Your task to perform on an android device: manage bookmarks in the chrome app Image 0: 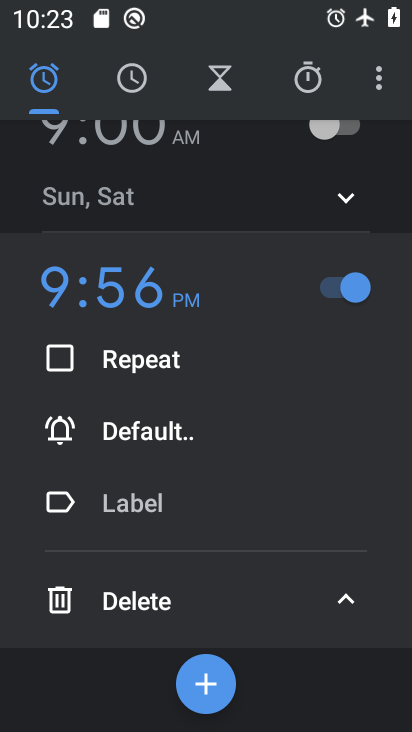
Step 0: press home button
Your task to perform on an android device: manage bookmarks in the chrome app Image 1: 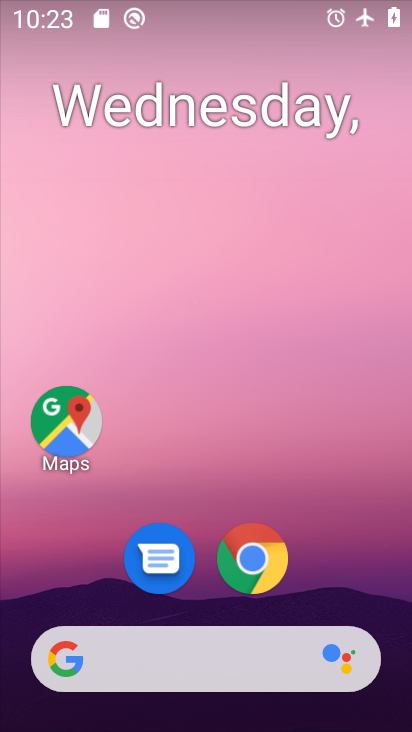
Step 1: drag from (356, 576) to (382, 112)
Your task to perform on an android device: manage bookmarks in the chrome app Image 2: 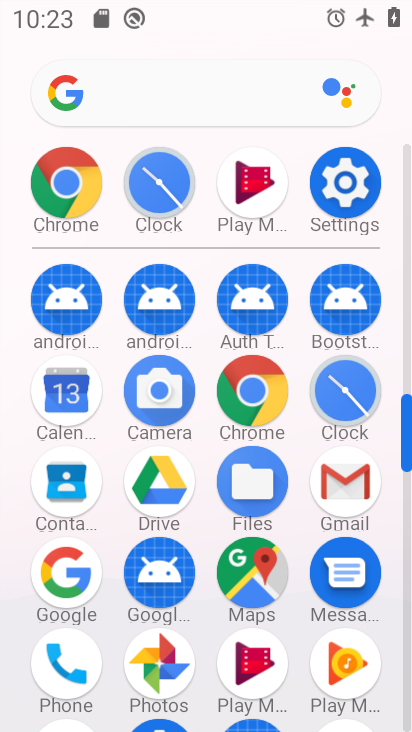
Step 2: click (270, 395)
Your task to perform on an android device: manage bookmarks in the chrome app Image 3: 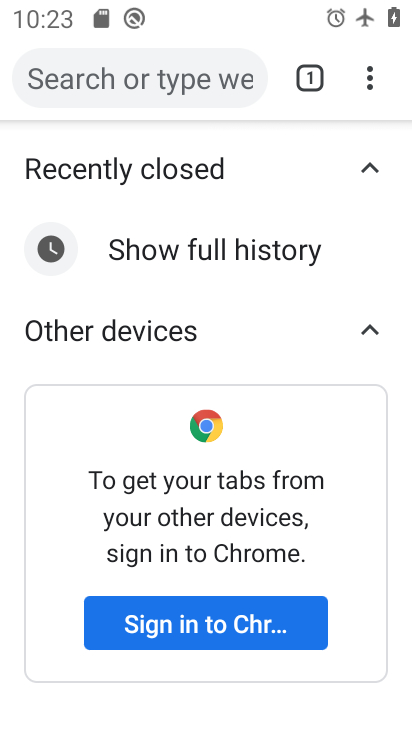
Step 3: click (369, 87)
Your task to perform on an android device: manage bookmarks in the chrome app Image 4: 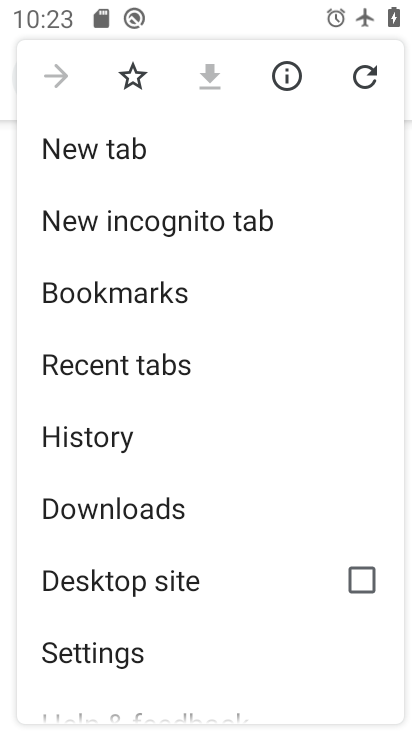
Step 4: drag from (341, 414) to (339, 328)
Your task to perform on an android device: manage bookmarks in the chrome app Image 5: 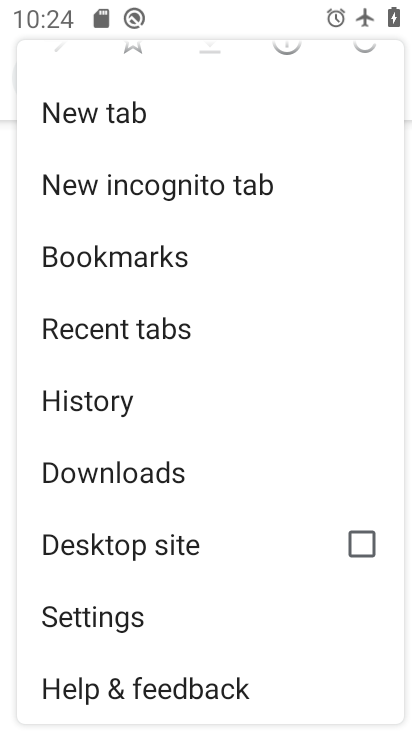
Step 5: drag from (284, 453) to (275, 317)
Your task to perform on an android device: manage bookmarks in the chrome app Image 6: 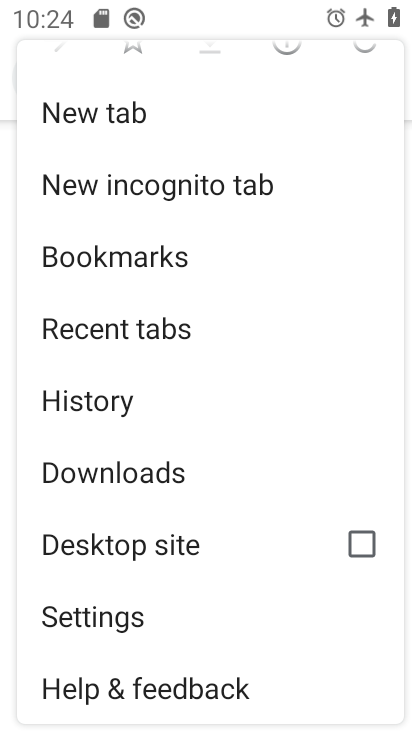
Step 6: click (207, 263)
Your task to perform on an android device: manage bookmarks in the chrome app Image 7: 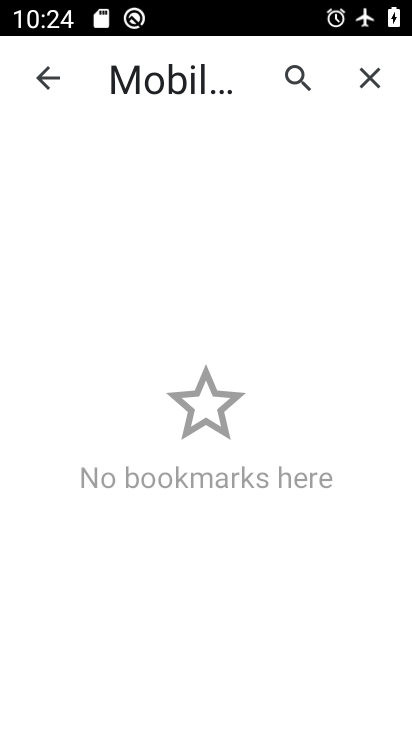
Step 7: task complete